Your task to perform on an android device: Search for vegetarian restaurants on Maps Image 0: 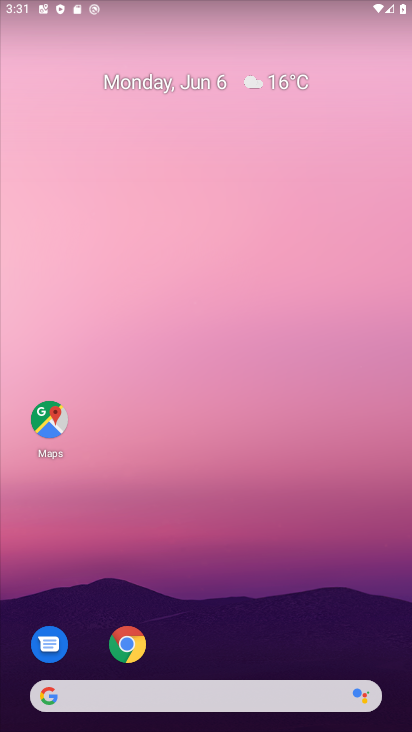
Step 0: drag from (238, 522) to (174, 19)
Your task to perform on an android device: Search for vegetarian restaurants on Maps Image 1: 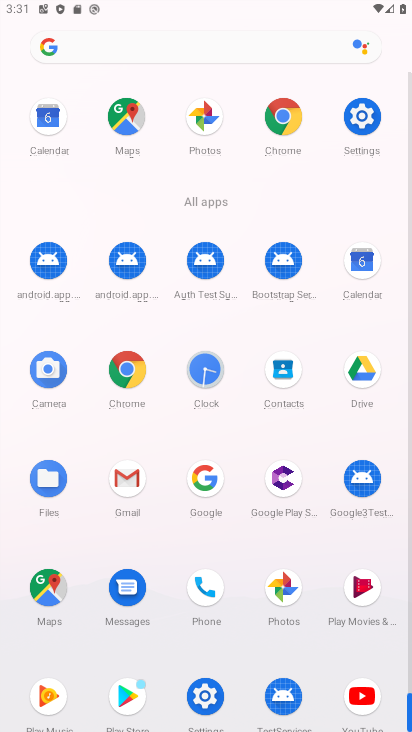
Step 1: drag from (18, 585) to (1, 212)
Your task to perform on an android device: Search for vegetarian restaurants on Maps Image 2: 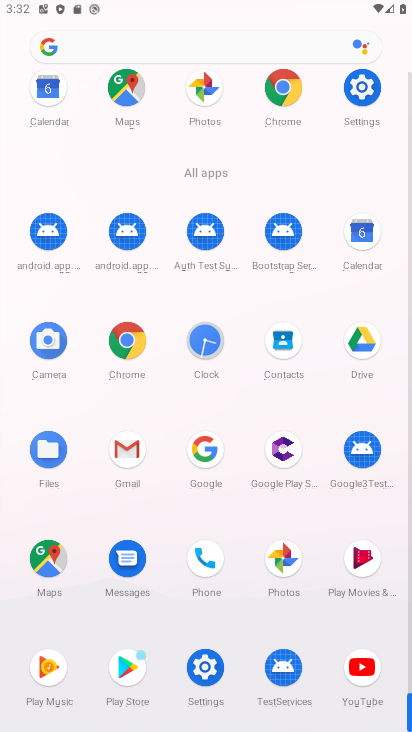
Step 2: click (41, 553)
Your task to perform on an android device: Search for vegetarian restaurants on Maps Image 3: 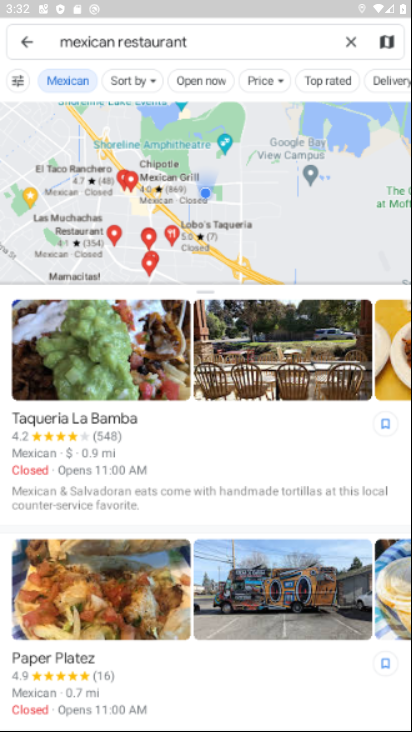
Step 3: click (344, 42)
Your task to perform on an android device: Search for vegetarian restaurants on Maps Image 4: 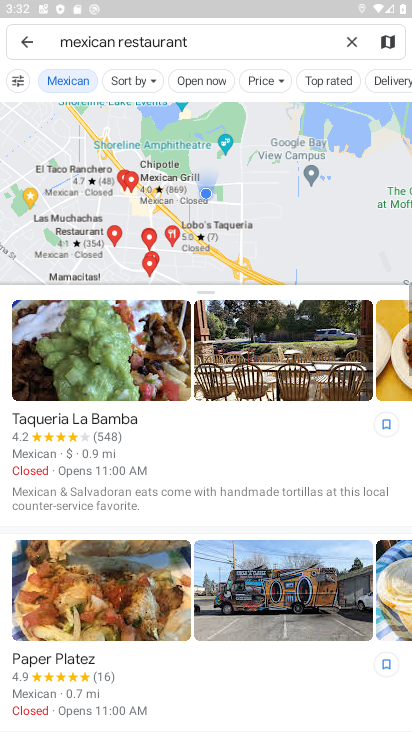
Step 4: click (348, 38)
Your task to perform on an android device: Search for vegetarian restaurants on Maps Image 5: 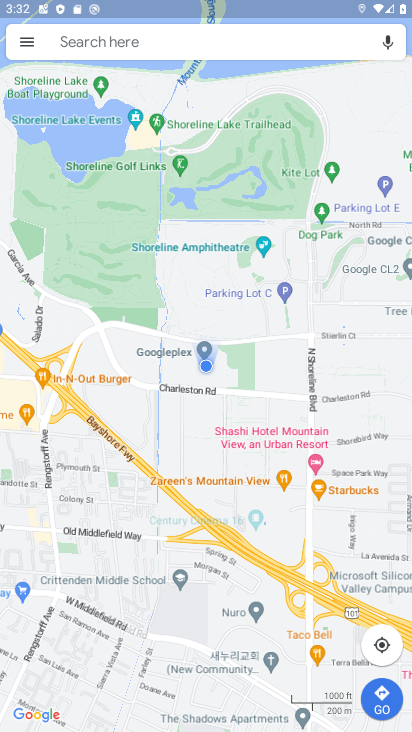
Step 5: click (245, 40)
Your task to perform on an android device: Search for vegetarian restaurants on Maps Image 6: 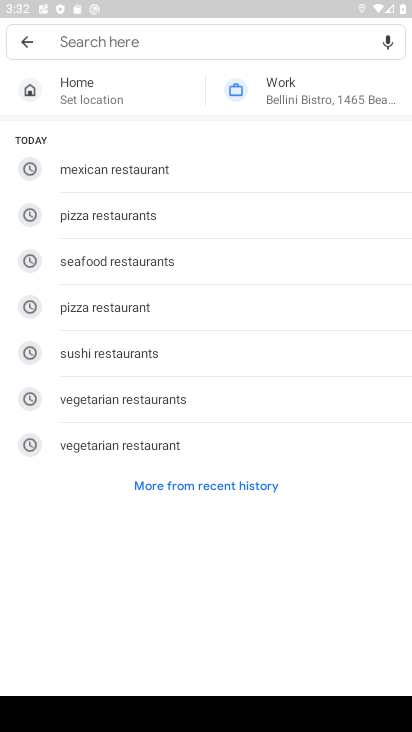
Step 6: click (129, 401)
Your task to perform on an android device: Search for vegetarian restaurants on Maps Image 7: 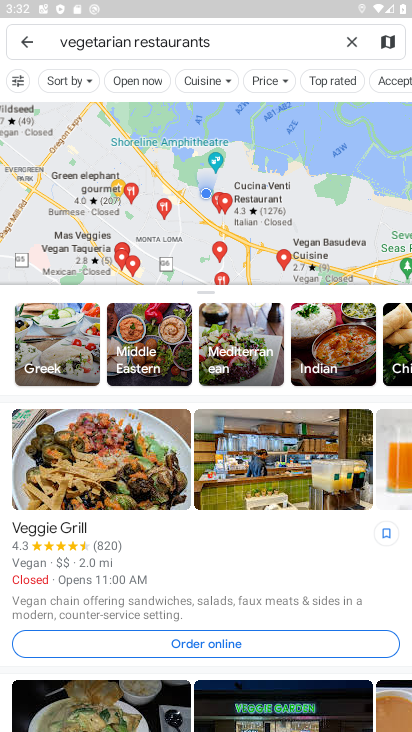
Step 7: task complete